Your task to perform on an android device: What's the weather? Image 0: 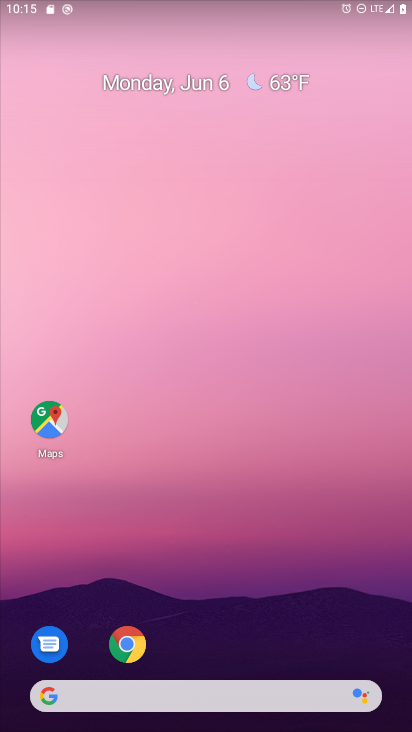
Step 0: drag from (255, 714) to (213, 230)
Your task to perform on an android device: What's the weather? Image 1: 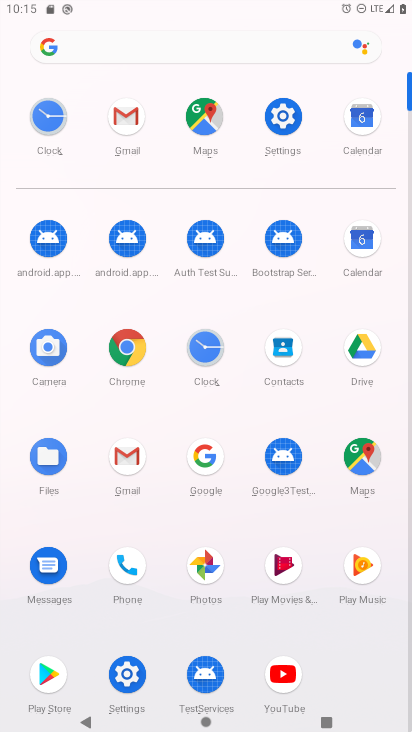
Step 1: click (119, 48)
Your task to perform on an android device: What's the weather? Image 2: 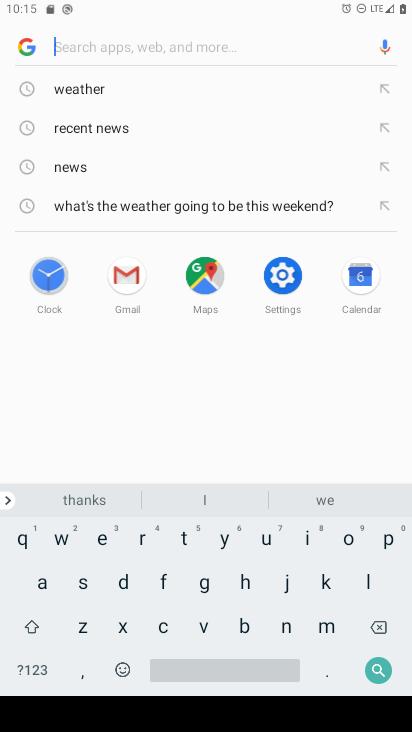
Step 2: click (94, 96)
Your task to perform on an android device: What's the weather? Image 3: 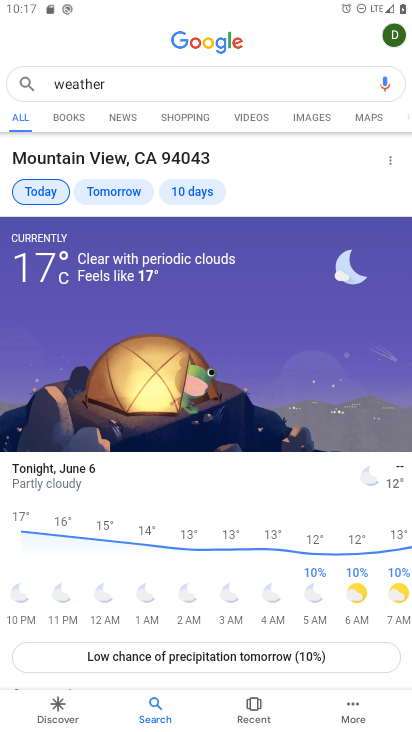
Step 3: task complete